Your task to perform on an android device: Look up the best rated headphones on Aliexpress Image 0: 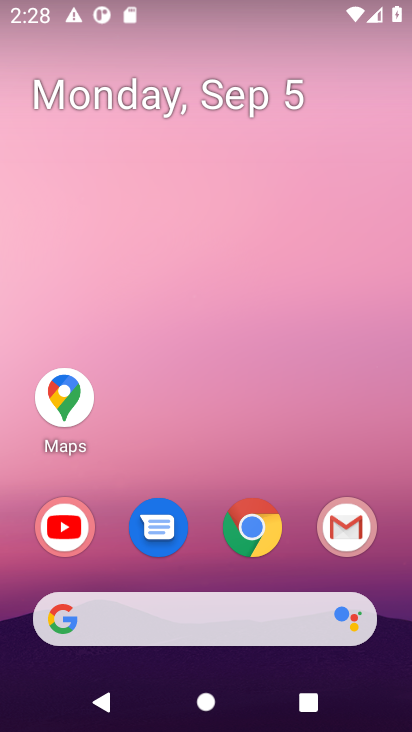
Step 0: click (238, 510)
Your task to perform on an android device: Look up the best rated headphones on Aliexpress Image 1: 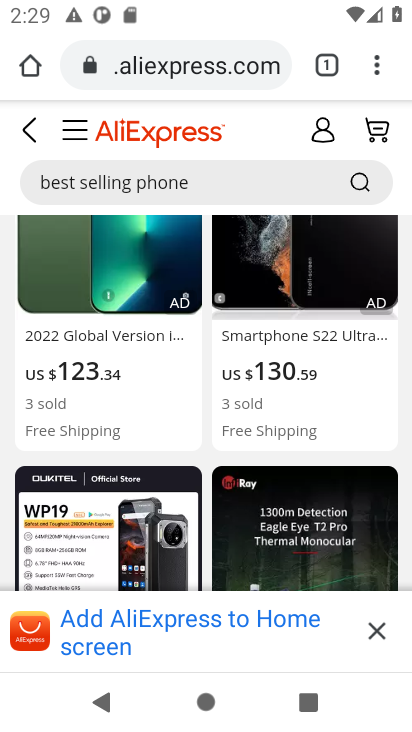
Step 1: click (263, 178)
Your task to perform on an android device: Look up the best rated headphones on Aliexpress Image 2: 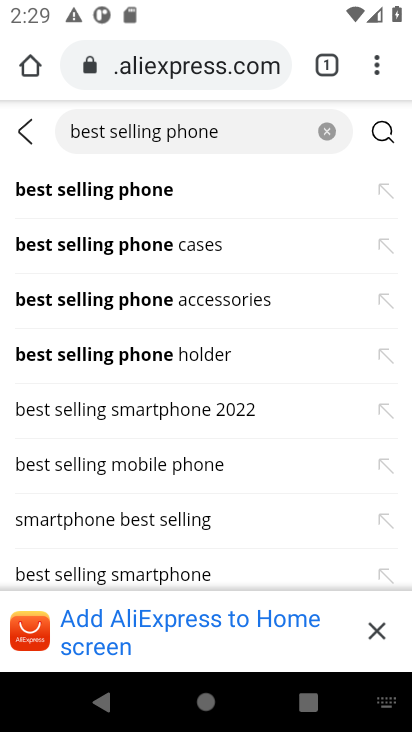
Step 2: click (328, 130)
Your task to perform on an android device: Look up the best rated headphones on Aliexpress Image 3: 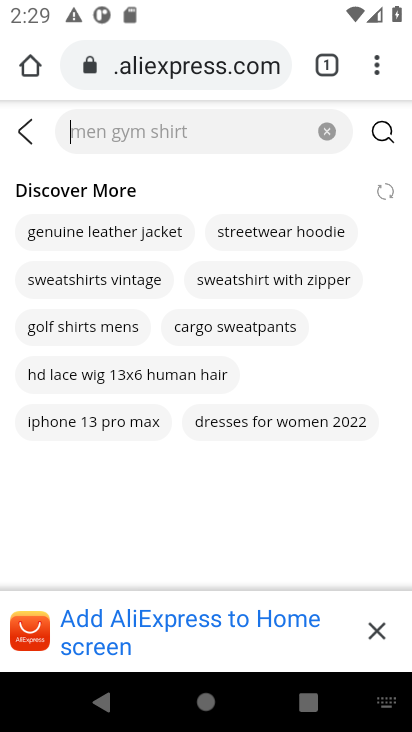
Step 3: type "the best rated headphones"
Your task to perform on an android device: Look up the best rated headphones on Aliexpress Image 4: 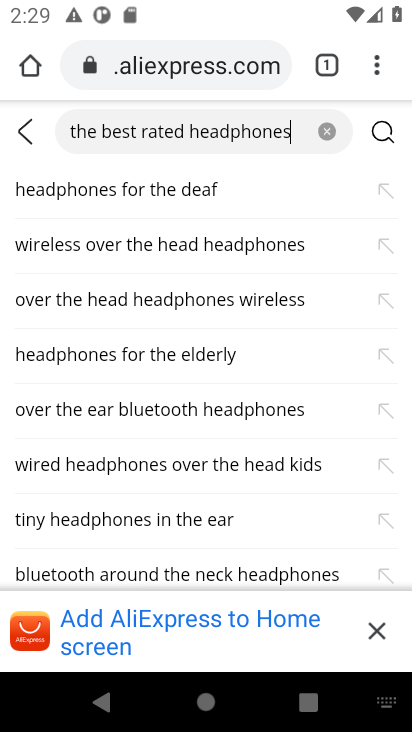
Step 4: click (384, 120)
Your task to perform on an android device: Look up the best rated headphones on Aliexpress Image 5: 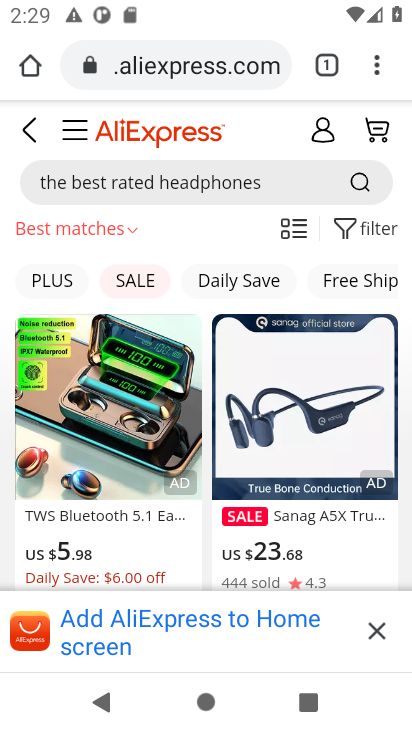
Step 5: task complete